Your task to perform on an android device: Show me popular videos on Youtube Image 0: 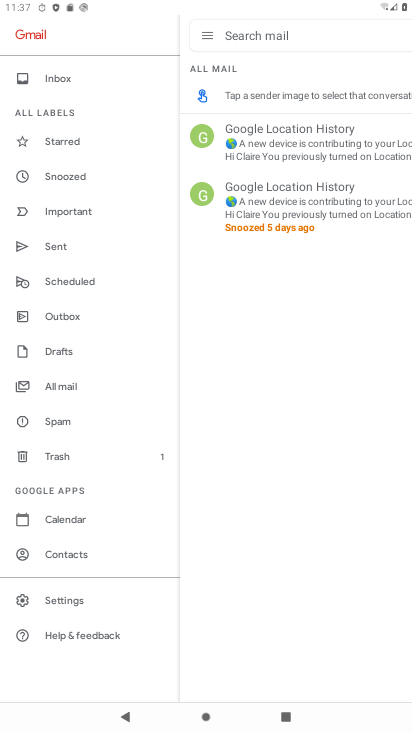
Step 0: press home button
Your task to perform on an android device: Show me popular videos on Youtube Image 1: 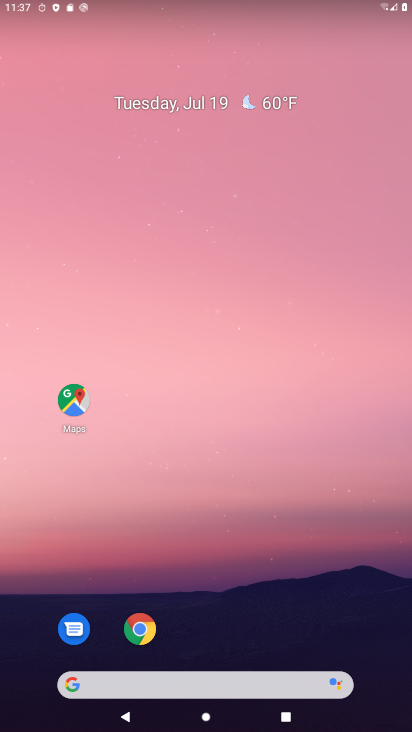
Step 1: drag from (322, 629) to (298, 84)
Your task to perform on an android device: Show me popular videos on Youtube Image 2: 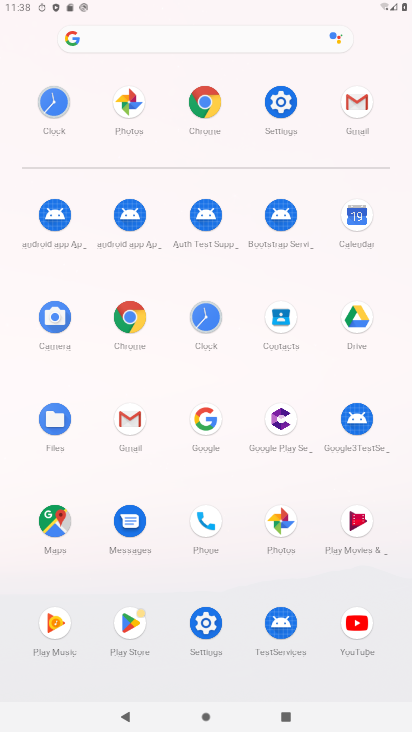
Step 2: click (361, 625)
Your task to perform on an android device: Show me popular videos on Youtube Image 3: 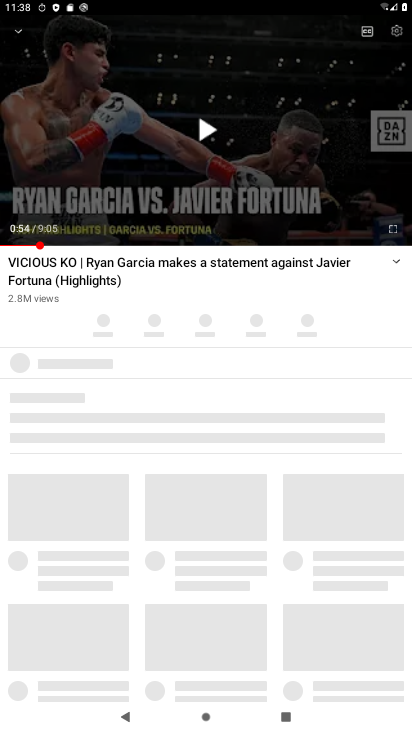
Step 3: click (17, 21)
Your task to perform on an android device: Show me popular videos on Youtube Image 4: 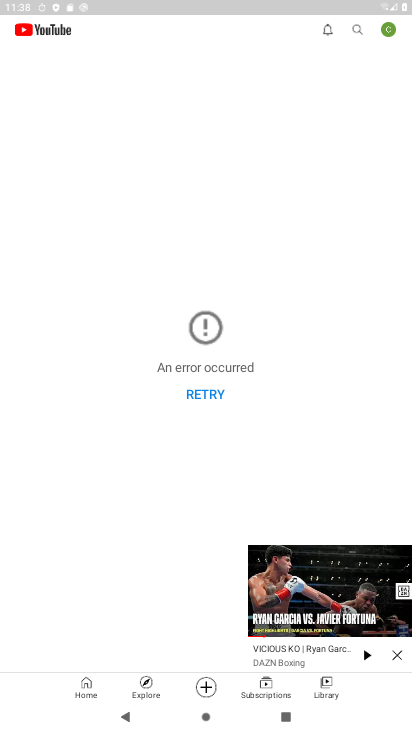
Step 4: click (84, 689)
Your task to perform on an android device: Show me popular videos on Youtube Image 5: 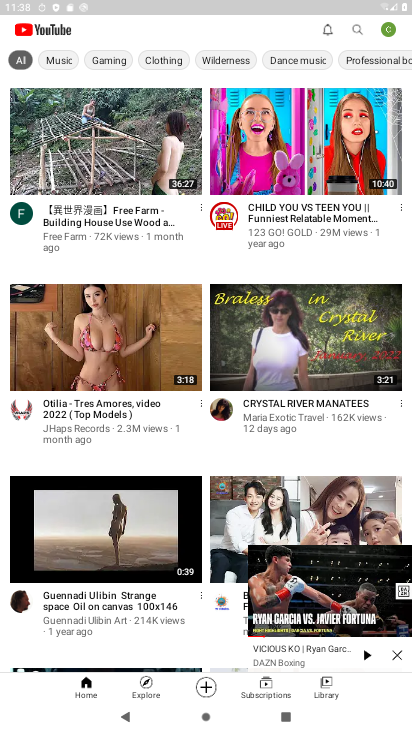
Step 5: click (27, 64)
Your task to perform on an android device: Show me popular videos on Youtube Image 6: 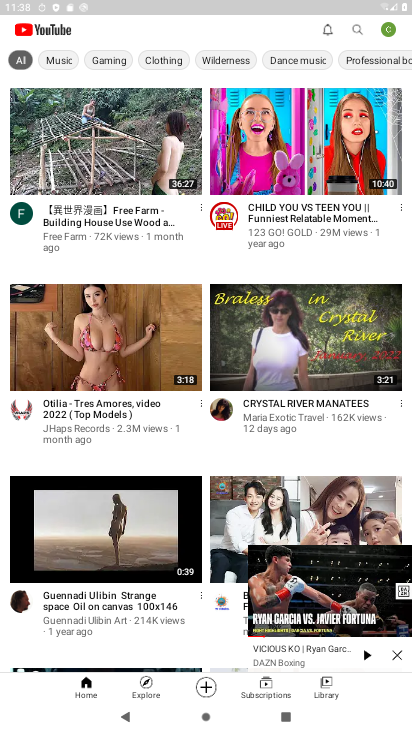
Step 6: click (154, 687)
Your task to perform on an android device: Show me popular videos on Youtube Image 7: 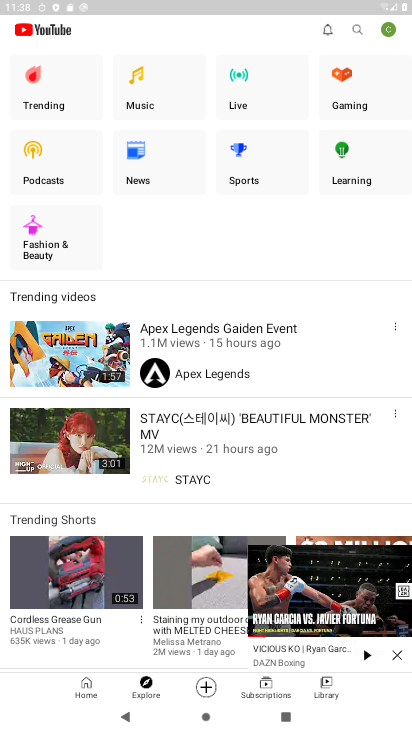
Step 7: click (59, 86)
Your task to perform on an android device: Show me popular videos on Youtube Image 8: 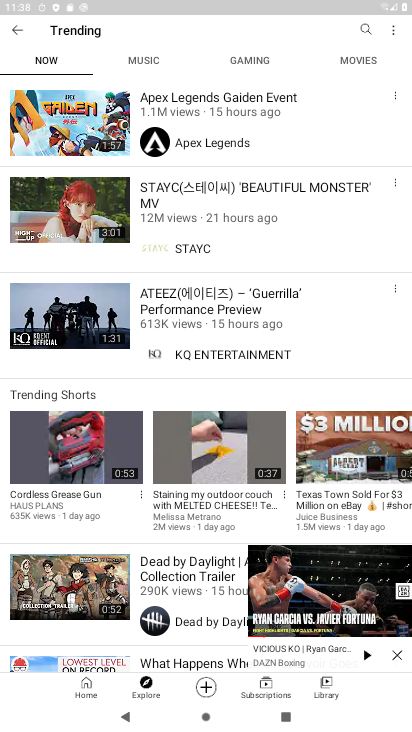
Step 8: task complete